Your task to perform on an android device: turn off notifications settings in the gmail app Image 0: 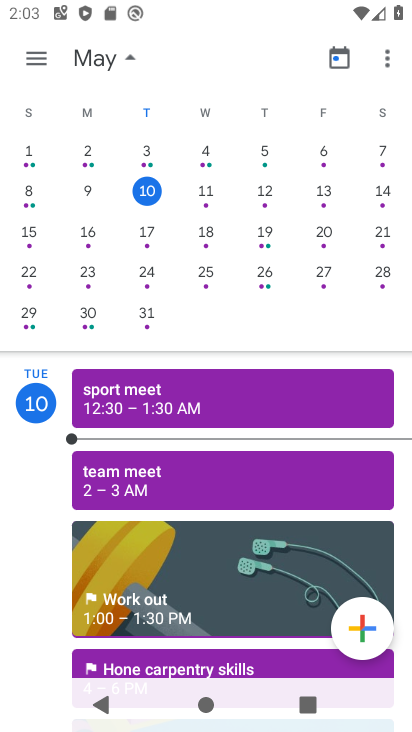
Step 0: press home button
Your task to perform on an android device: turn off notifications settings in the gmail app Image 1: 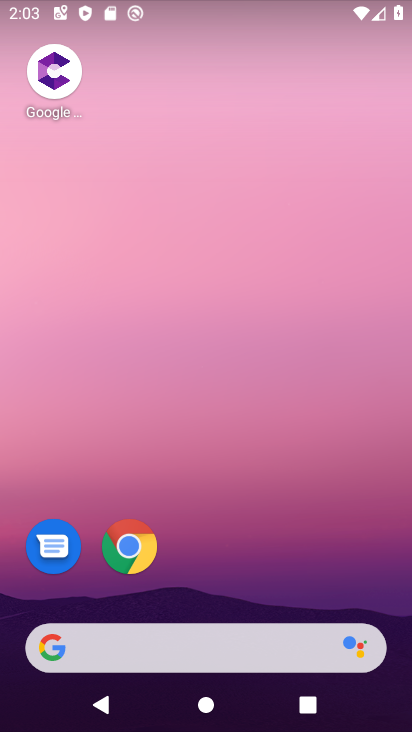
Step 1: drag from (357, 573) to (318, 77)
Your task to perform on an android device: turn off notifications settings in the gmail app Image 2: 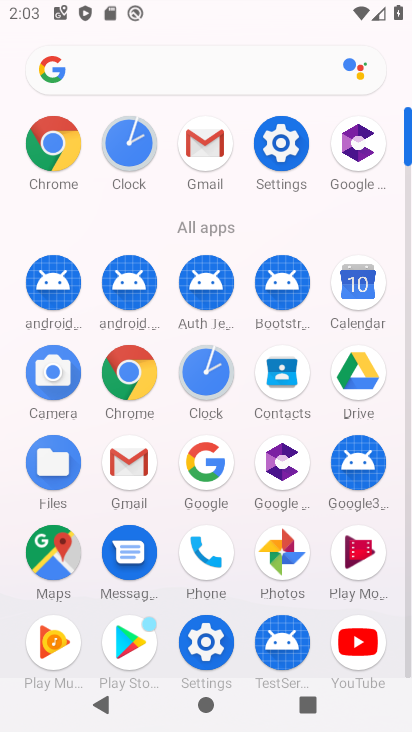
Step 2: click (228, 166)
Your task to perform on an android device: turn off notifications settings in the gmail app Image 3: 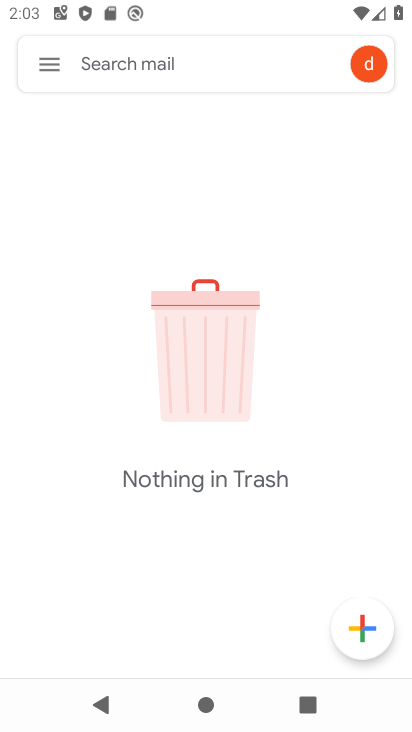
Step 3: click (62, 64)
Your task to perform on an android device: turn off notifications settings in the gmail app Image 4: 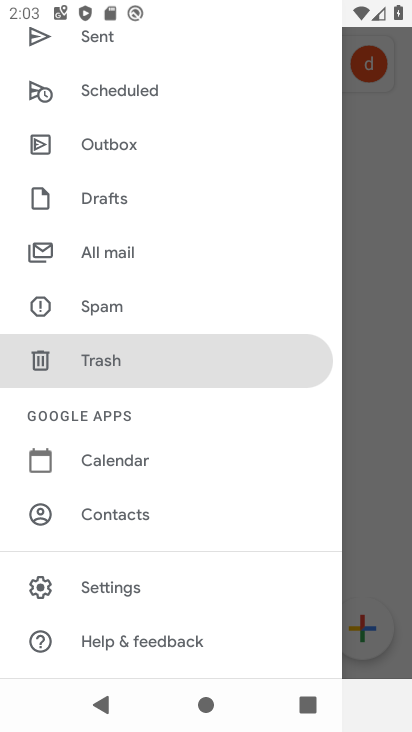
Step 4: click (100, 586)
Your task to perform on an android device: turn off notifications settings in the gmail app Image 5: 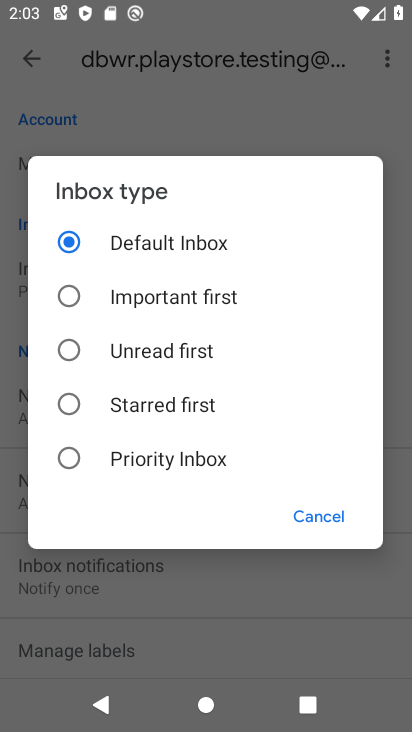
Step 5: click (335, 516)
Your task to perform on an android device: turn off notifications settings in the gmail app Image 6: 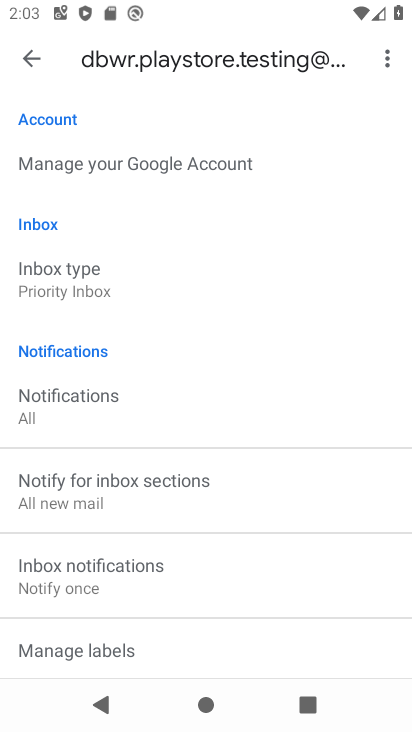
Step 6: click (48, 405)
Your task to perform on an android device: turn off notifications settings in the gmail app Image 7: 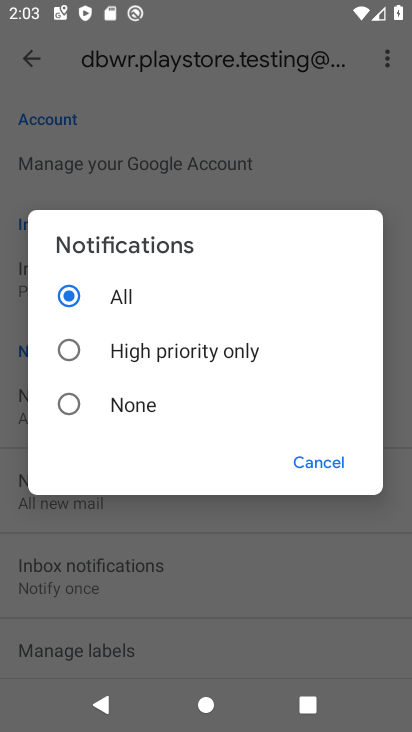
Step 7: click (68, 412)
Your task to perform on an android device: turn off notifications settings in the gmail app Image 8: 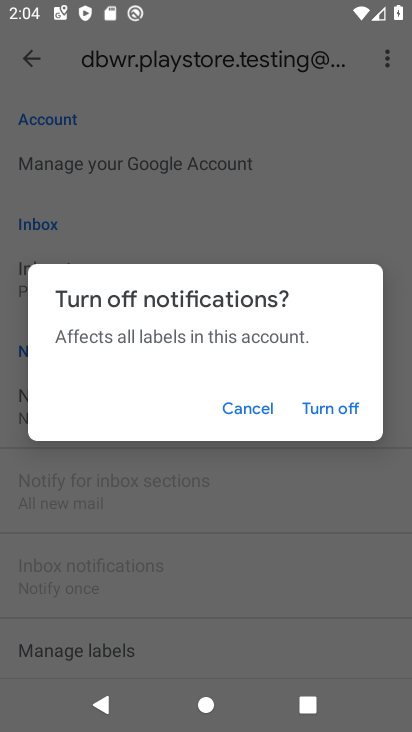
Step 8: task complete